Your task to perform on an android device: turn off priority inbox in the gmail app Image 0: 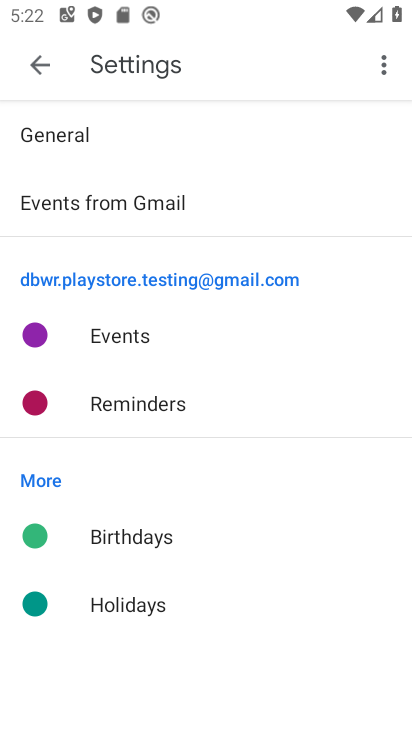
Step 0: press home button
Your task to perform on an android device: turn off priority inbox in the gmail app Image 1: 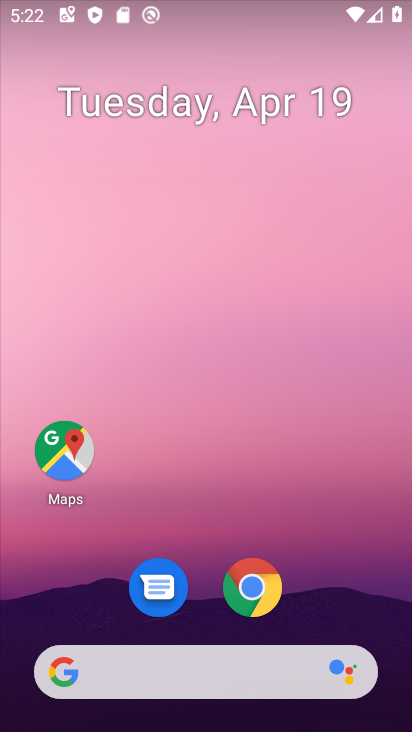
Step 1: drag from (181, 523) to (211, 6)
Your task to perform on an android device: turn off priority inbox in the gmail app Image 2: 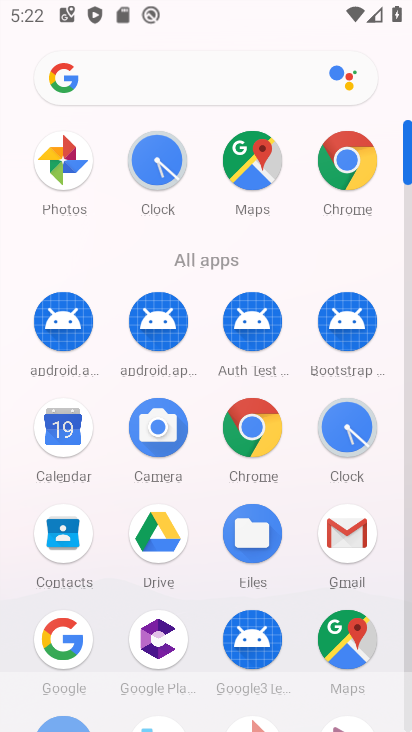
Step 2: click (338, 539)
Your task to perform on an android device: turn off priority inbox in the gmail app Image 3: 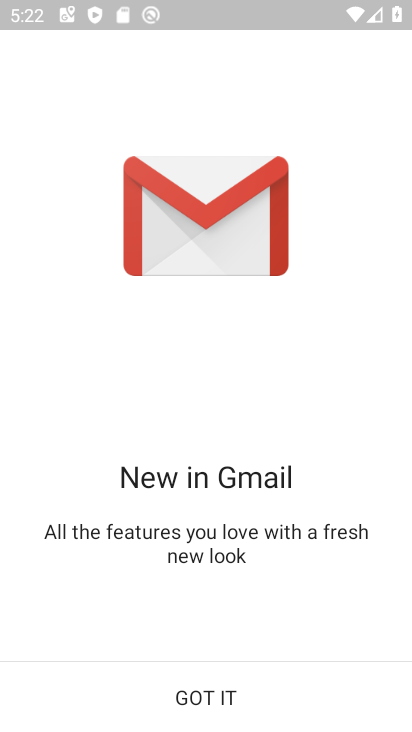
Step 3: click (164, 666)
Your task to perform on an android device: turn off priority inbox in the gmail app Image 4: 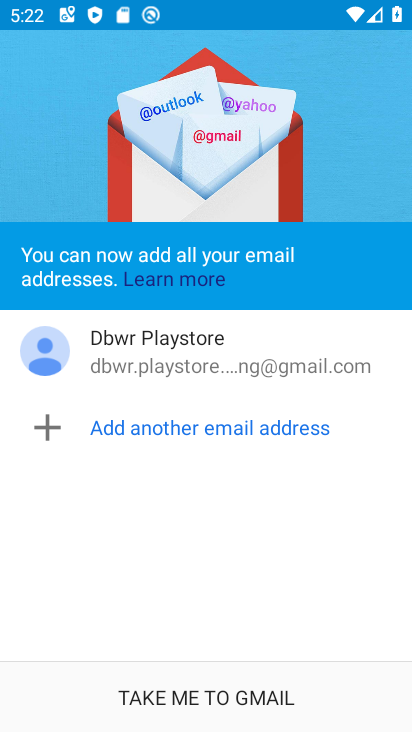
Step 4: click (178, 685)
Your task to perform on an android device: turn off priority inbox in the gmail app Image 5: 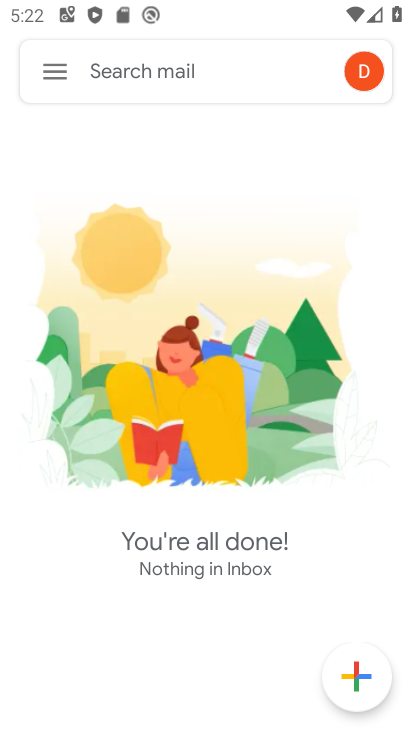
Step 5: click (67, 61)
Your task to perform on an android device: turn off priority inbox in the gmail app Image 6: 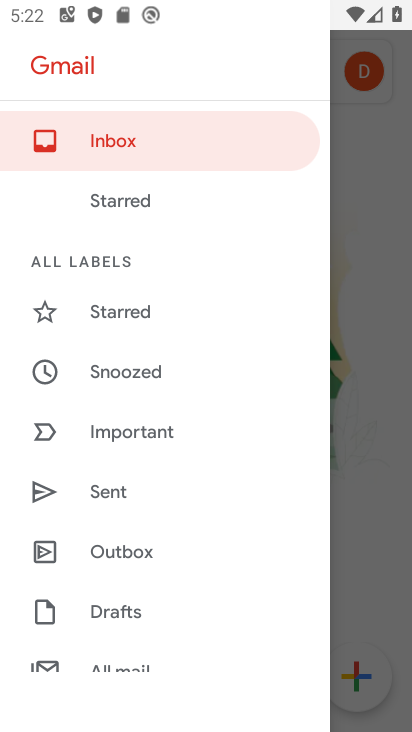
Step 6: drag from (148, 660) to (171, 220)
Your task to perform on an android device: turn off priority inbox in the gmail app Image 7: 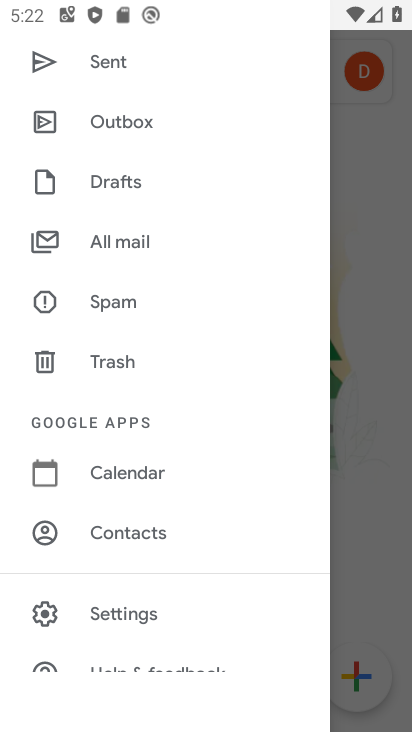
Step 7: click (94, 617)
Your task to perform on an android device: turn off priority inbox in the gmail app Image 8: 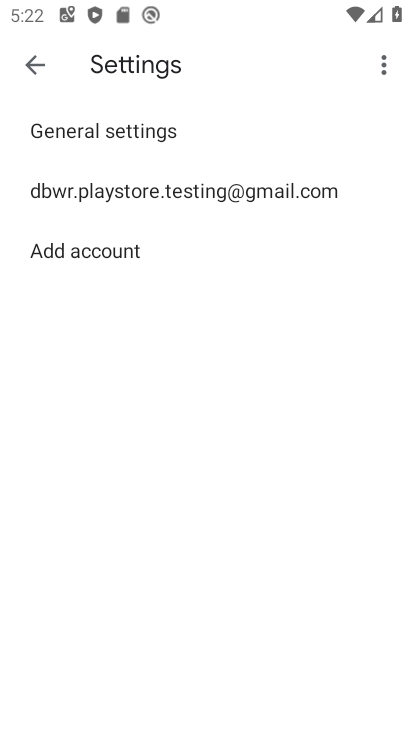
Step 8: click (159, 188)
Your task to perform on an android device: turn off priority inbox in the gmail app Image 9: 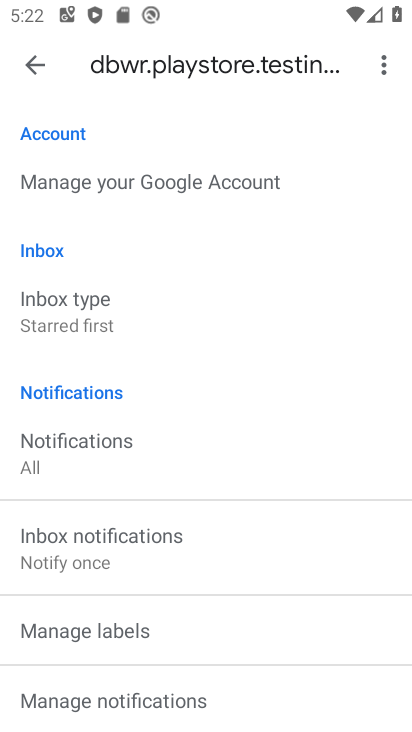
Step 9: click (91, 325)
Your task to perform on an android device: turn off priority inbox in the gmail app Image 10: 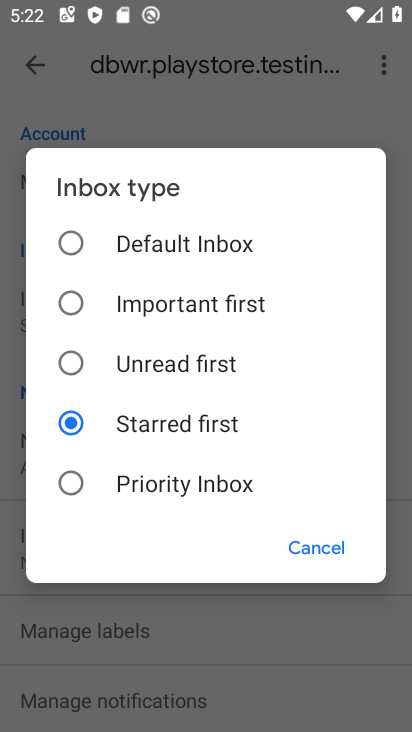
Step 10: task complete